Your task to perform on an android device: Open notification settings Image 0: 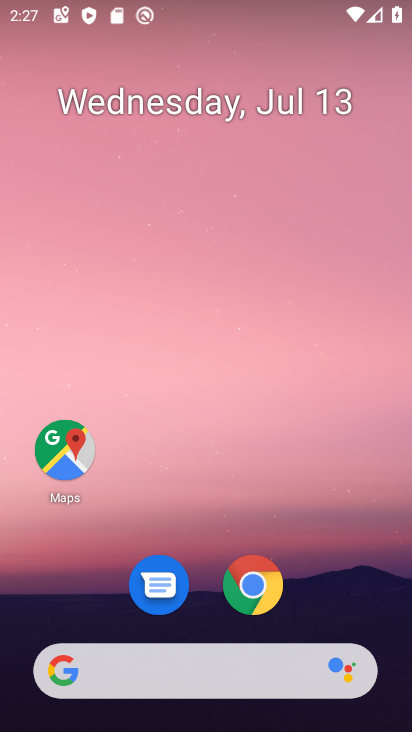
Step 0: drag from (219, 684) to (313, 100)
Your task to perform on an android device: Open notification settings Image 1: 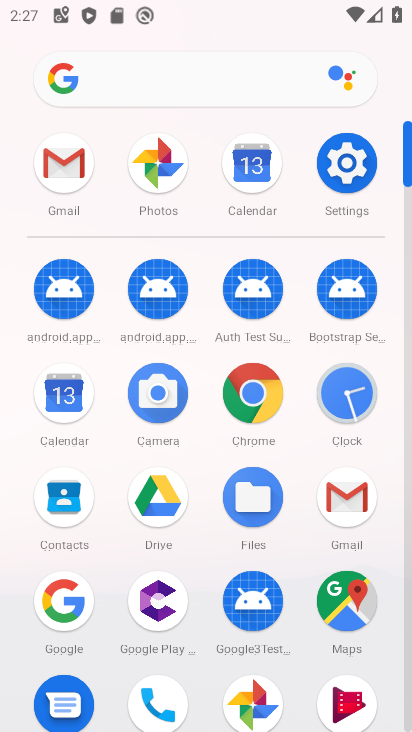
Step 1: click (326, 167)
Your task to perform on an android device: Open notification settings Image 2: 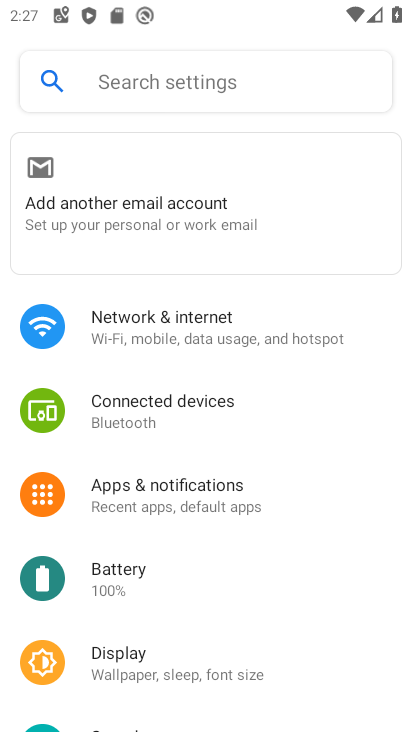
Step 2: click (176, 491)
Your task to perform on an android device: Open notification settings Image 3: 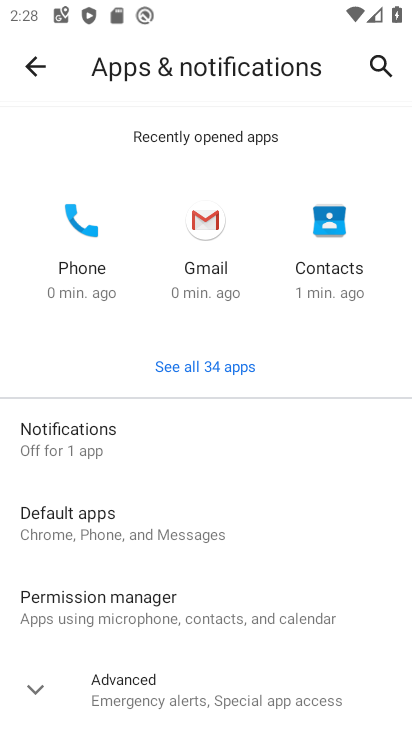
Step 3: click (135, 437)
Your task to perform on an android device: Open notification settings Image 4: 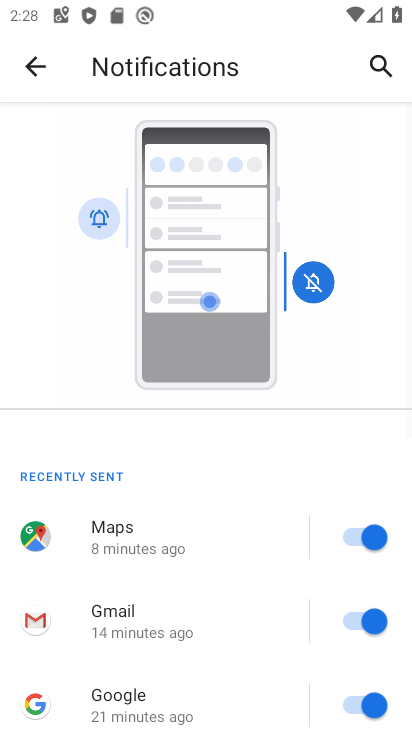
Step 4: task complete